Your task to perform on an android device: Find coffee shops on Maps Image 0: 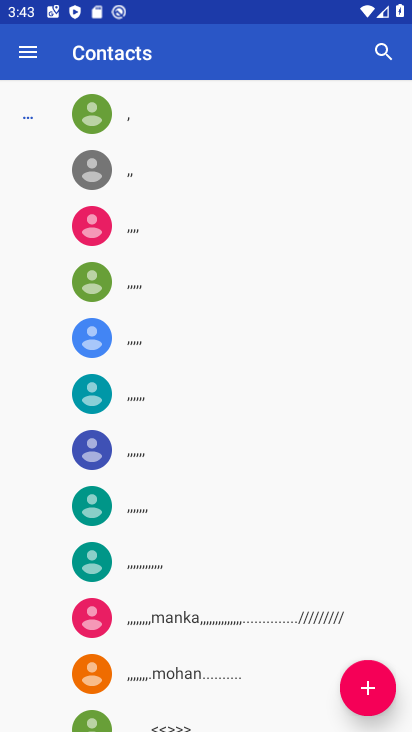
Step 0: press home button
Your task to perform on an android device: Find coffee shops on Maps Image 1: 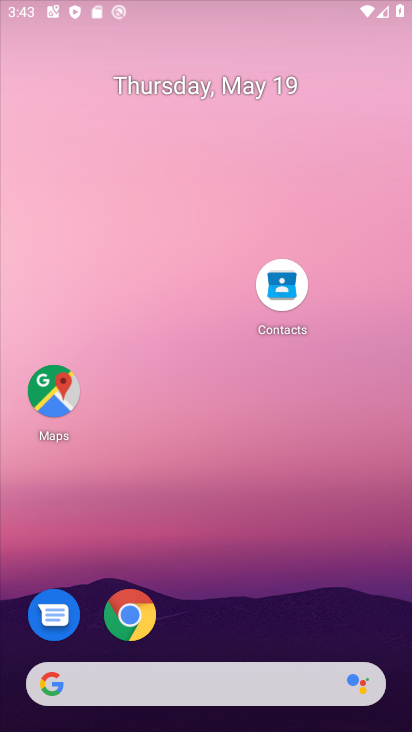
Step 1: drag from (208, 650) to (167, 266)
Your task to perform on an android device: Find coffee shops on Maps Image 2: 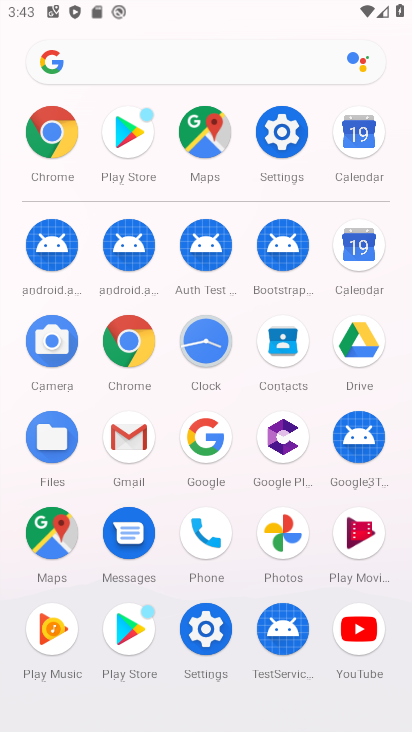
Step 2: click (211, 151)
Your task to perform on an android device: Find coffee shops on Maps Image 3: 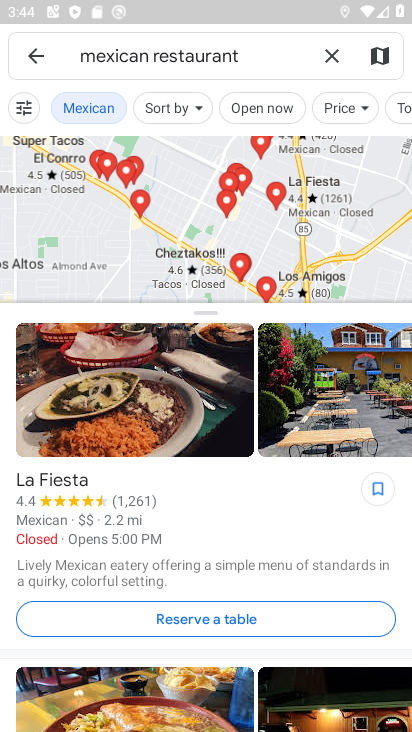
Step 3: click (330, 61)
Your task to perform on an android device: Find coffee shops on Maps Image 4: 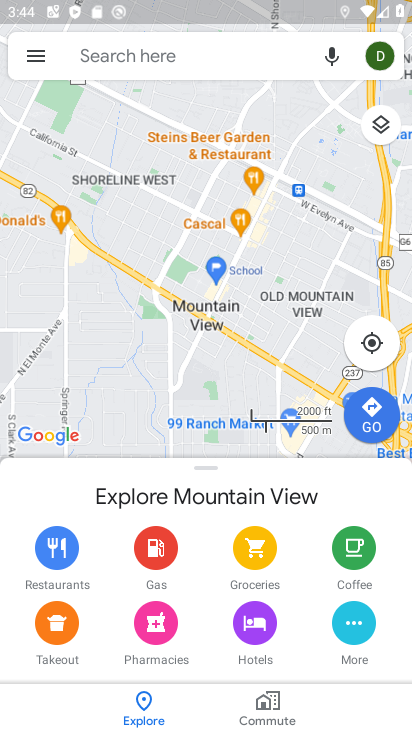
Step 4: click (292, 50)
Your task to perform on an android device: Find coffee shops on Maps Image 5: 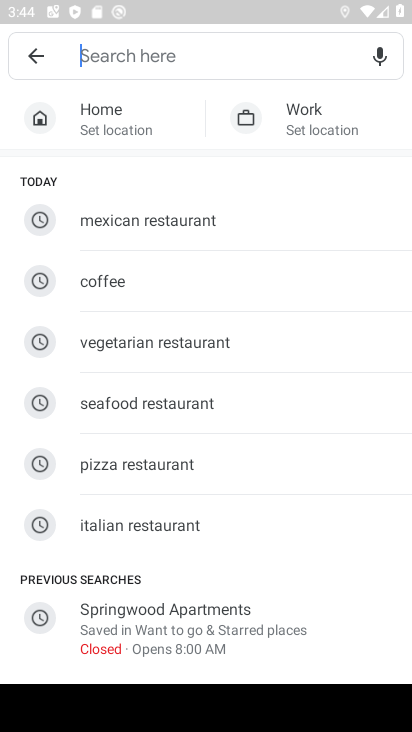
Step 5: type "coffee shops"
Your task to perform on an android device: Find coffee shops on Maps Image 6: 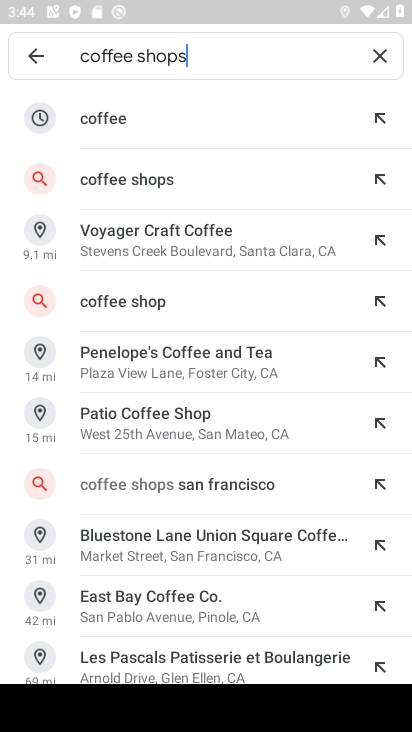
Step 6: click (148, 177)
Your task to perform on an android device: Find coffee shops on Maps Image 7: 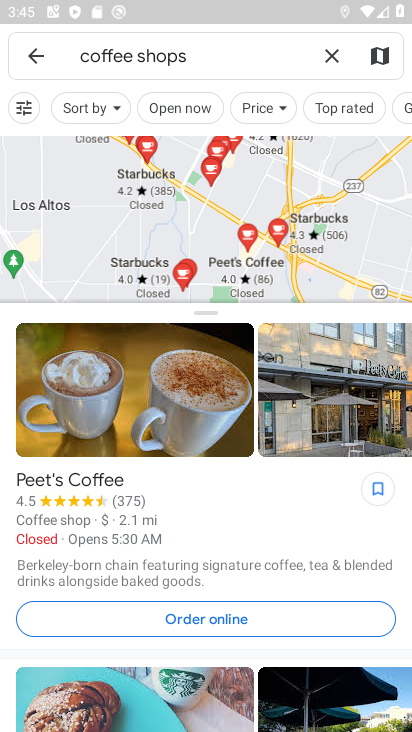
Step 7: task complete